Your task to perform on an android device: set the stopwatch Image 0: 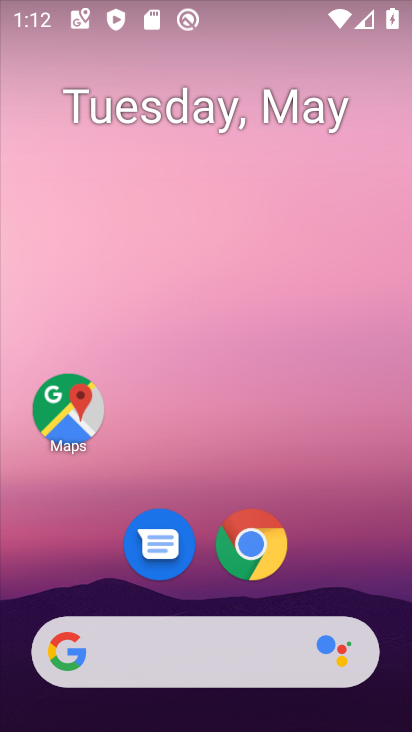
Step 0: drag from (131, 731) to (160, 86)
Your task to perform on an android device: set the stopwatch Image 1: 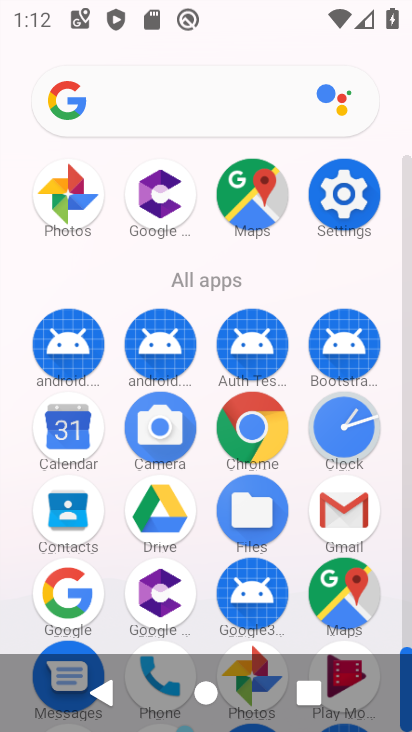
Step 1: click (343, 438)
Your task to perform on an android device: set the stopwatch Image 2: 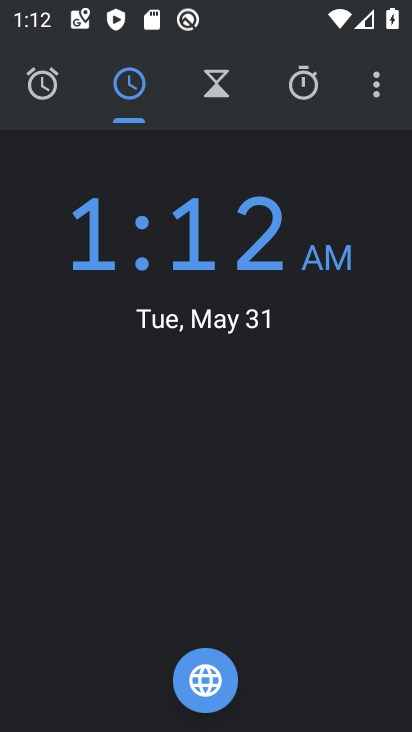
Step 2: click (295, 86)
Your task to perform on an android device: set the stopwatch Image 3: 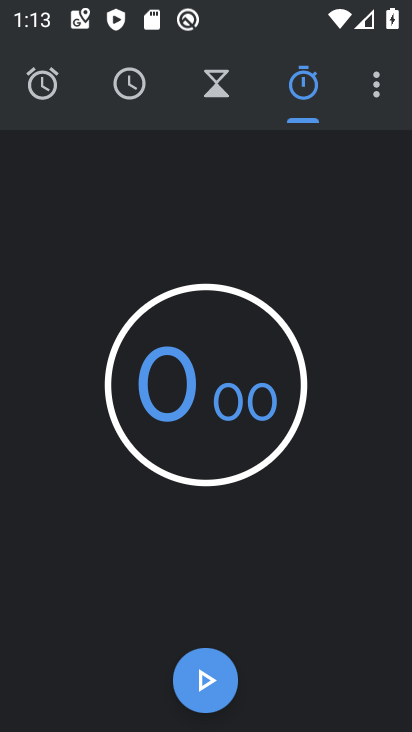
Step 3: click (209, 676)
Your task to perform on an android device: set the stopwatch Image 4: 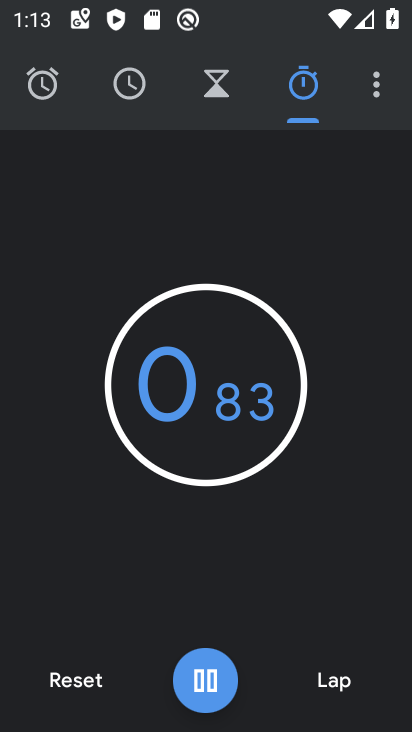
Step 4: click (201, 699)
Your task to perform on an android device: set the stopwatch Image 5: 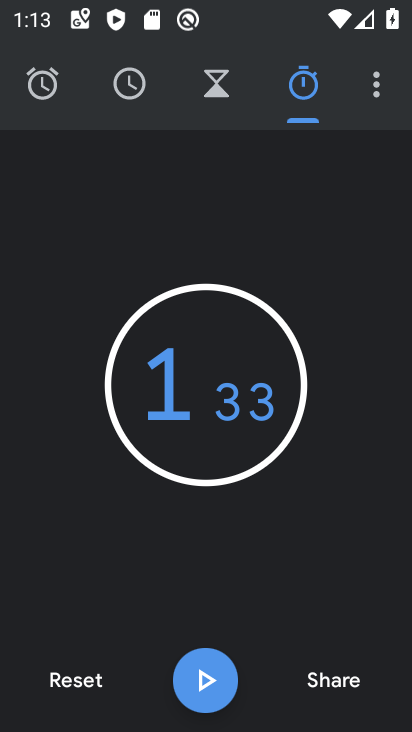
Step 5: task complete